Your task to perform on an android device: turn on the 12-hour format for clock Image 0: 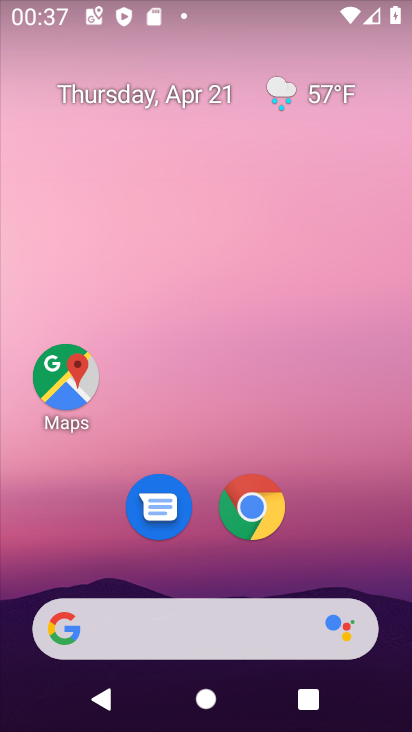
Step 0: click (307, 17)
Your task to perform on an android device: turn on the 12-hour format for clock Image 1: 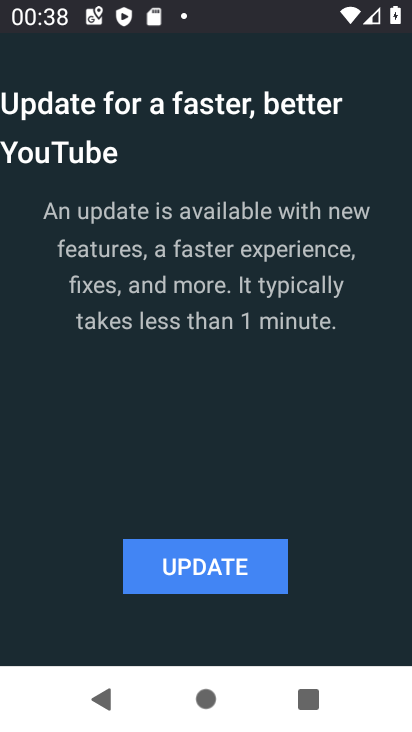
Step 1: press home button
Your task to perform on an android device: turn on the 12-hour format for clock Image 2: 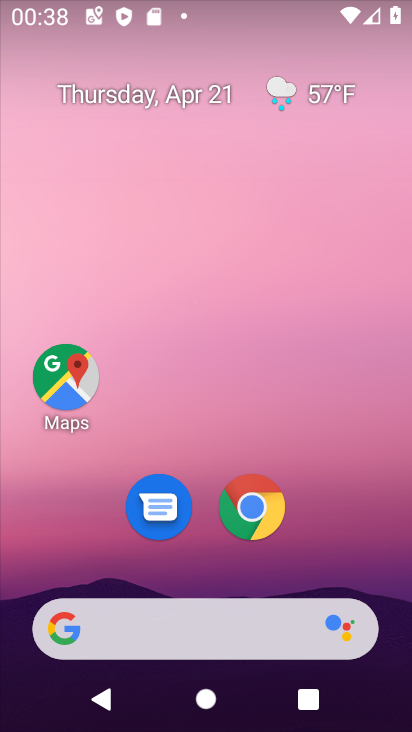
Step 2: drag from (226, 531) to (229, 15)
Your task to perform on an android device: turn on the 12-hour format for clock Image 3: 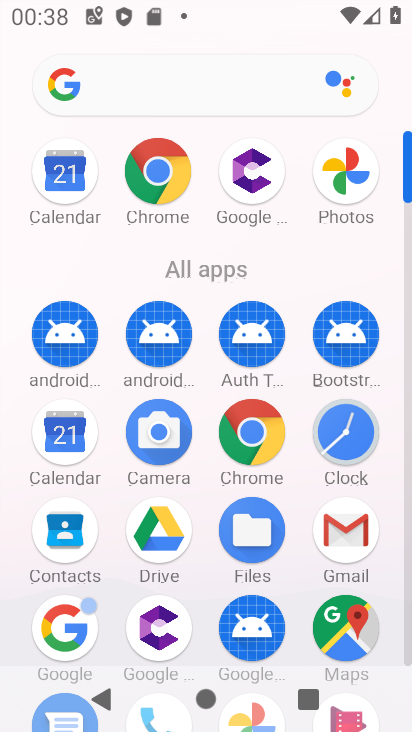
Step 3: click (351, 419)
Your task to perform on an android device: turn on the 12-hour format for clock Image 4: 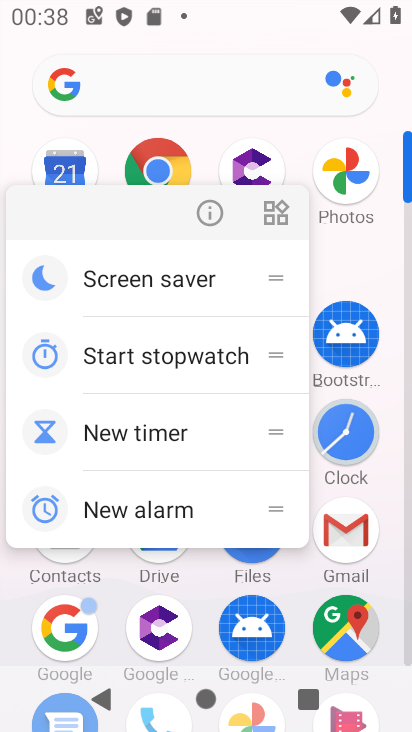
Step 4: click (200, 205)
Your task to perform on an android device: turn on the 12-hour format for clock Image 5: 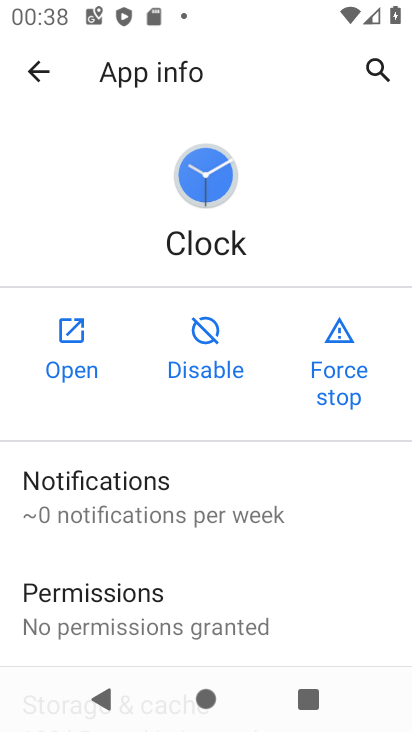
Step 5: click (69, 353)
Your task to perform on an android device: turn on the 12-hour format for clock Image 6: 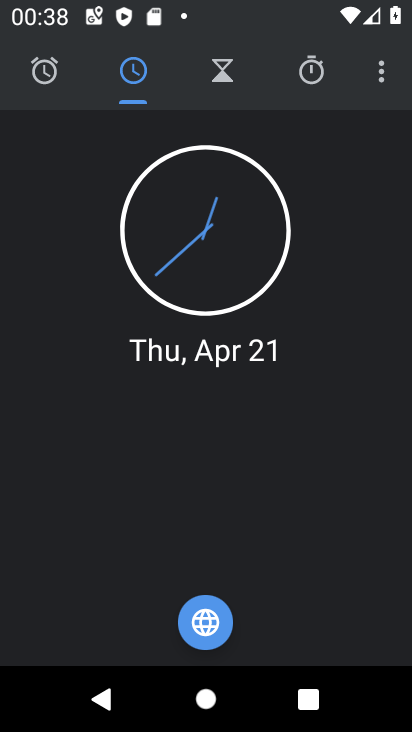
Step 6: click (385, 60)
Your task to perform on an android device: turn on the 12-hour format for clock Image 7: 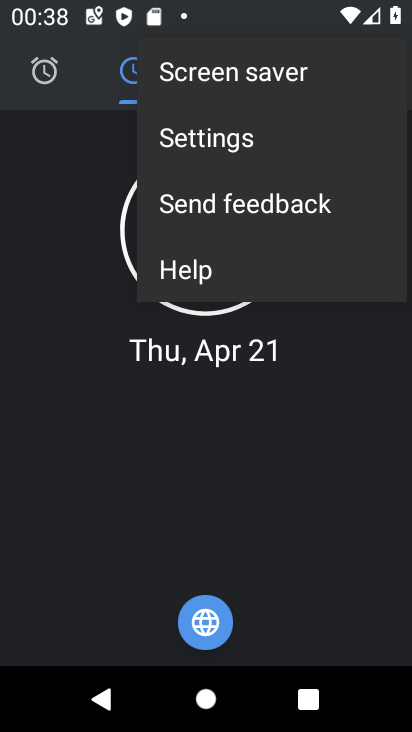
Step 7: click (247, 145)
Your task to perform on an android device: turn on the 12-hour format for clock Image 8: 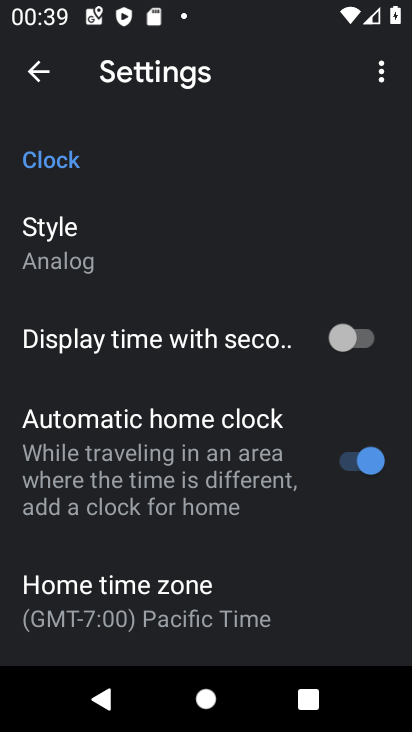
Step 8: drag from (189, 541) to (225, 179)
Your task to perform on an android device: turn on the 12-hour format for clock Image 9: 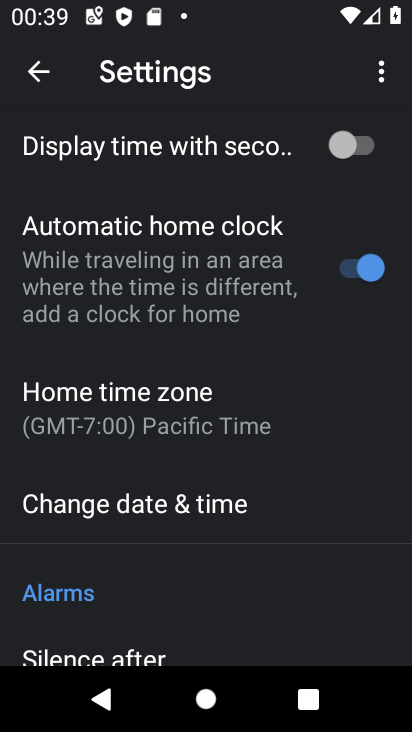
Step 9: click (206, 514)
Your task to perform on an android device: turn on the 12-hour format for clock Image 10: 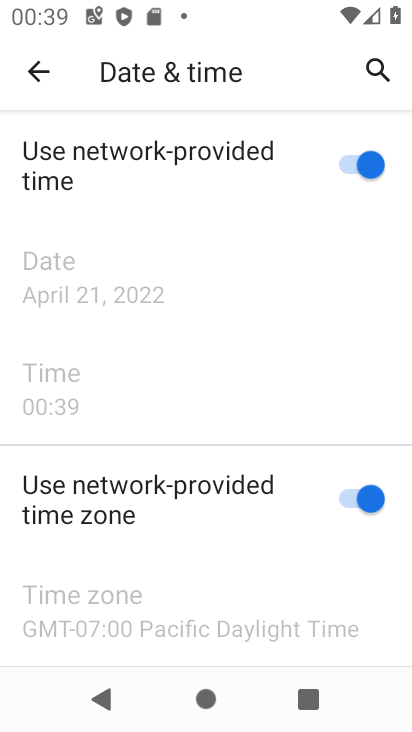
Step 10: drag from (185, 552) to (268, 204)
Your task to perform on an android device: turn on the 12-hour format for clock Image 11: 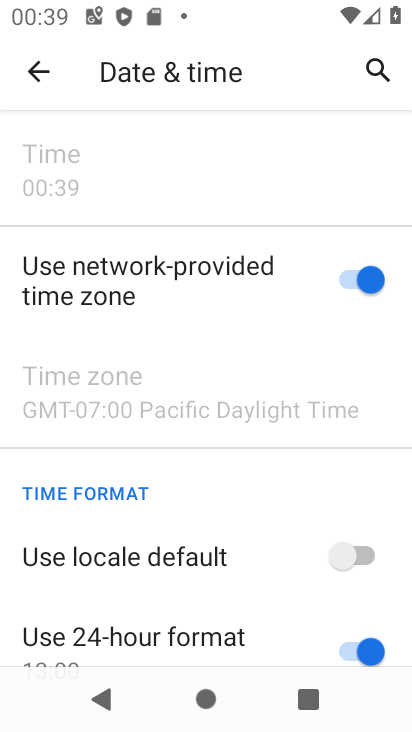
Step 11: drag from (307, 598) to (340, 262)
Your task to perform on an android device: turn on the 12-hour format for clock Image 12: 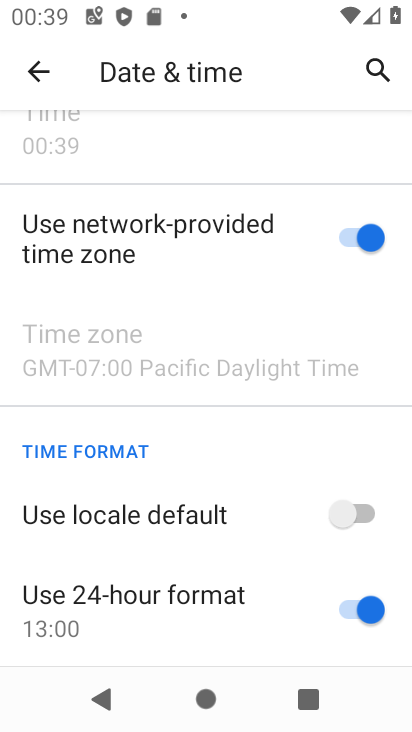
Step 12: click (356, 611)
Your task to perform on an android device: turn on the 12-hour format for clock Image 13: 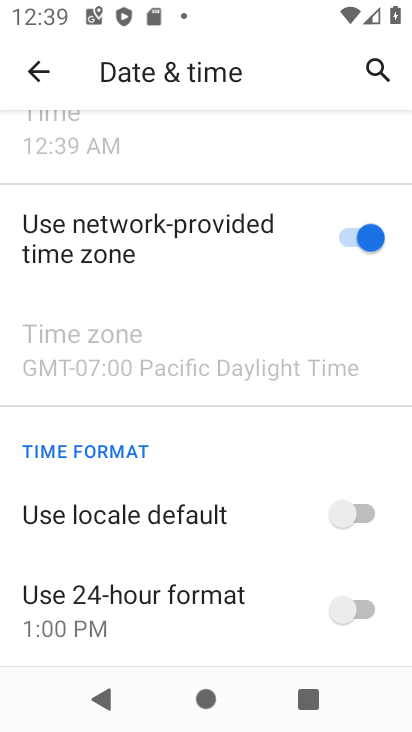
Step 13: task complete